Your task to perform on an android device: Go to battery settings Image 0: 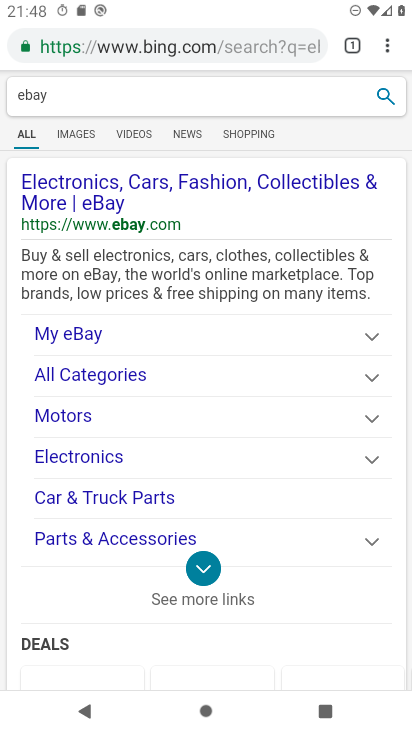
Step 0: press home button
Your task to perform on an android device: Go to battery settings Image 1: 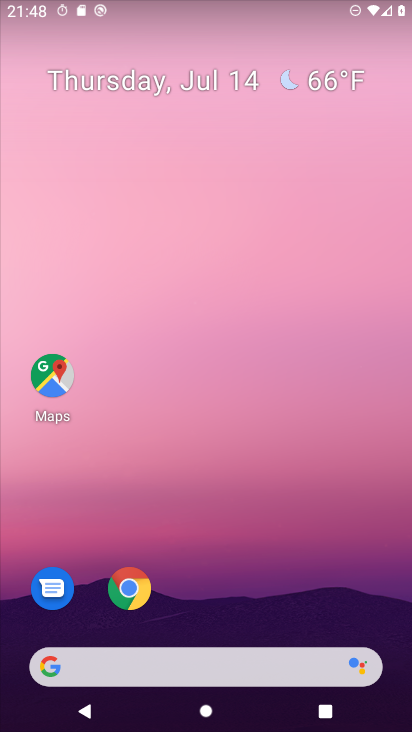
Step 1: drag from (359, 602) to (394, 76)
Your task to perform on an android device: Go to battery settings Image 2: 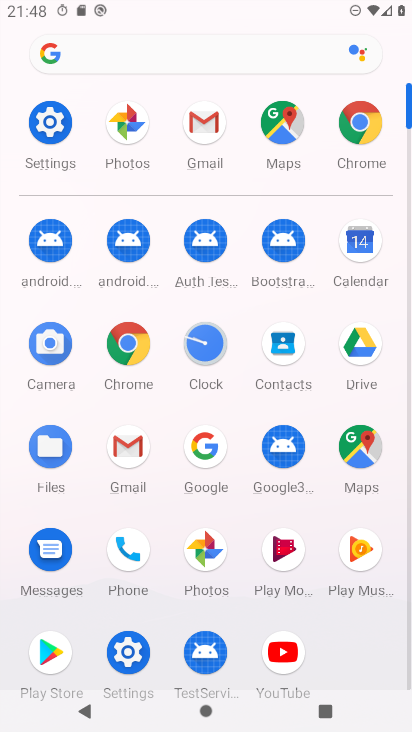
Step 2: click (58, 134)
Your task to perform on an android device: Go to battery settings Image 3: 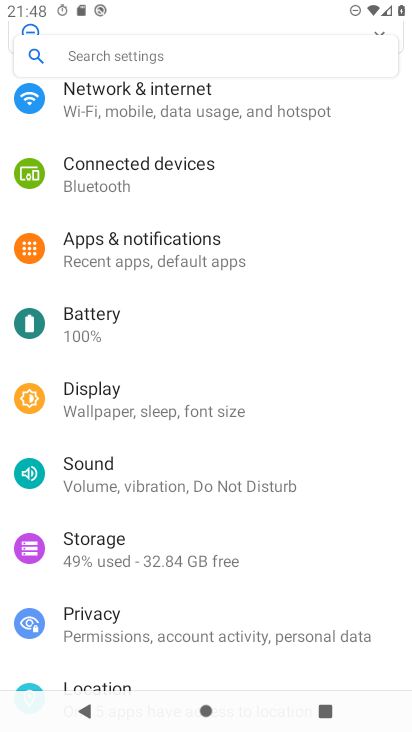
Step 3: drag from (355, 187) to (352, 295)
Your task to perform on an android device: Go to battery settings Image 4: 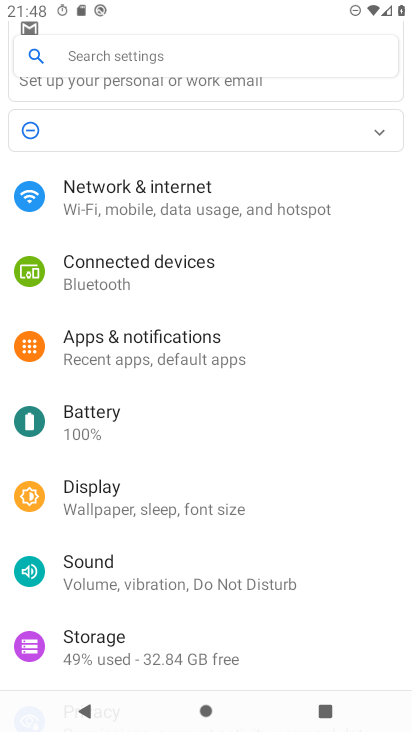
Step 4: drag from (358, 270) to (351, 397)
Your task to perform on an android device: Go to battery settings Image 5: 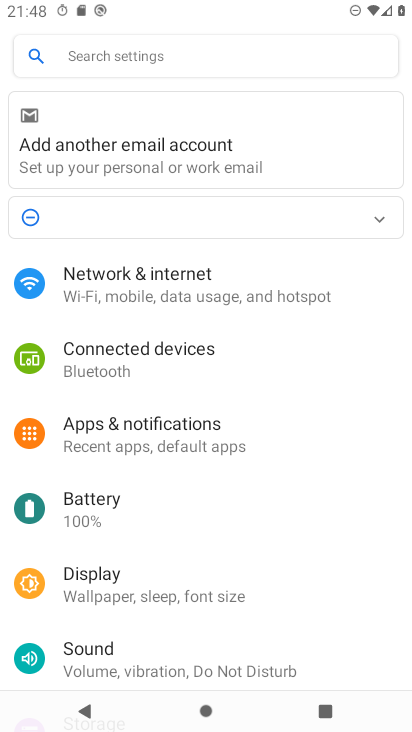
Step 5: drag from (360, 450) to (362, 367)
Your task to perform on an android device: Go to battery settings Image 6: 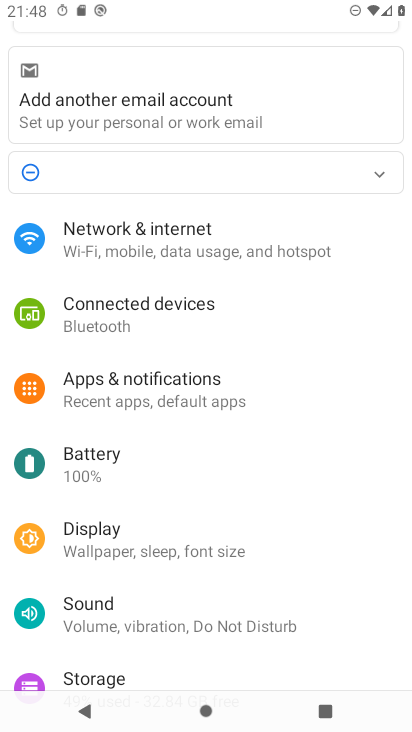
Step 6: drag from (348, 469) to (347, 369)
Your task to perform on an android device: Go to battery settings Image 7: 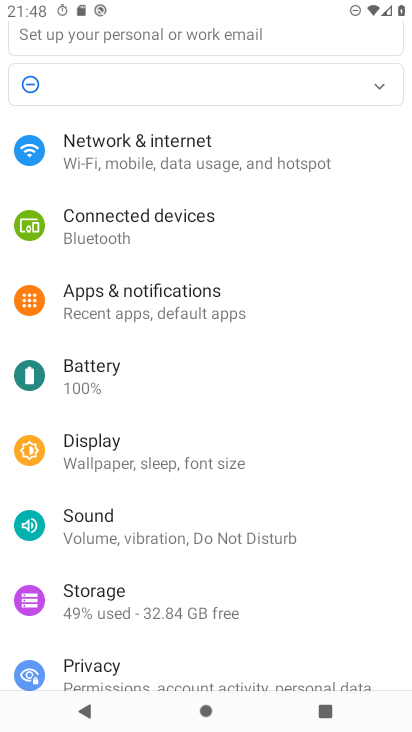
Step 7: drag from (356, 466) to (357, 372)
Your task to perform on an android device: Go to battery settings Image 8: 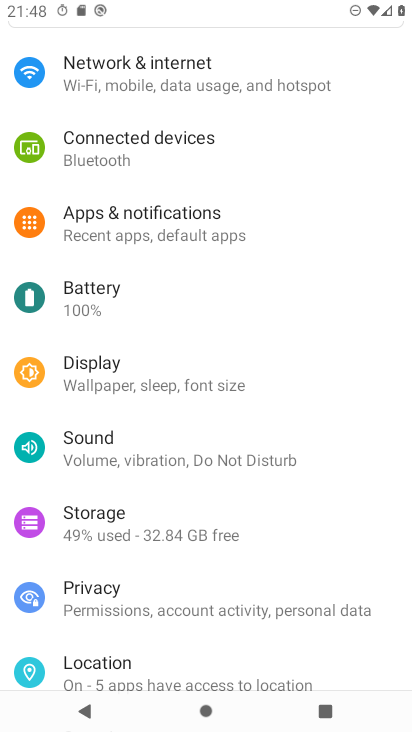
Step 8: drag from (343, 430) to (348, 339)
Your task to perform on an android device: Go to battery settings Image 9: 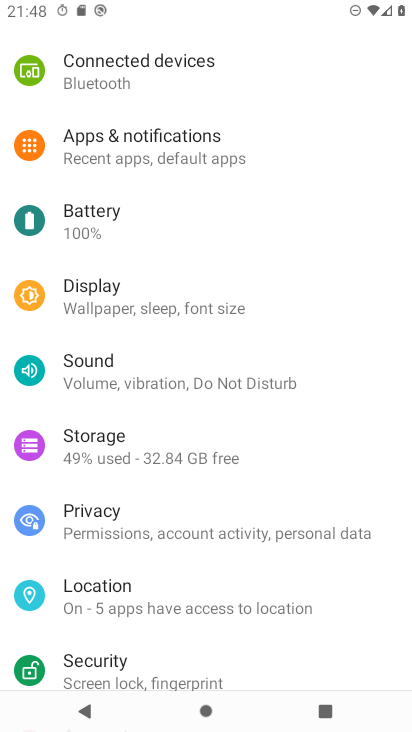
Step 9: click (162, 236)
Your task to perform on an android device: Go to battery settings Image 10: 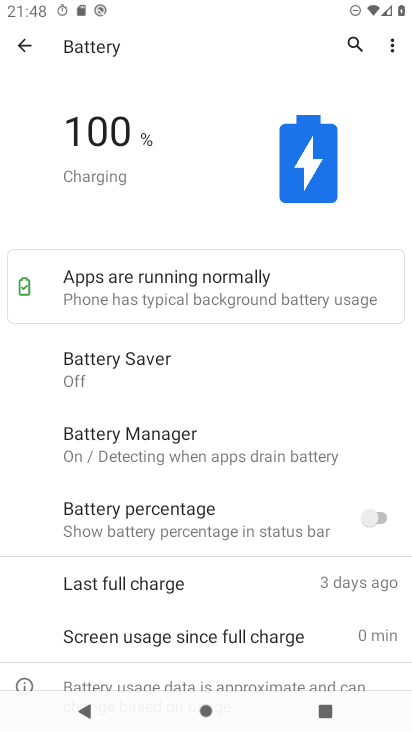
Step 10: task complete